Your task to perform on an android device: Open Google Chrome Image 0: 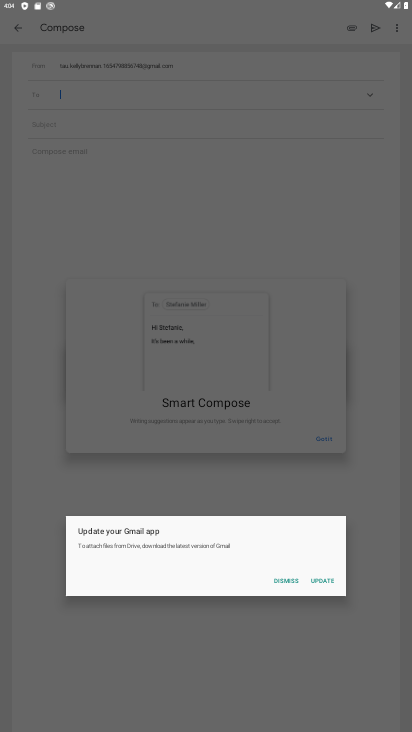
Step 0: press home button
Your task to perform on an android device: Open Google Chrome Image 1: 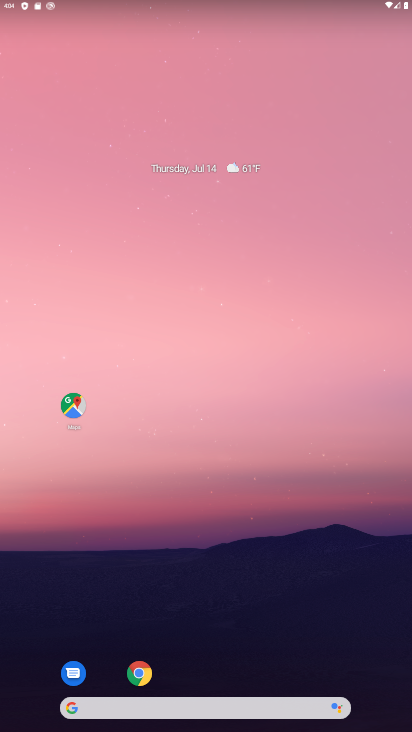
Step 1: click (147, 669)
Your task to perform on an android device: Open Google Chrome Image 2: 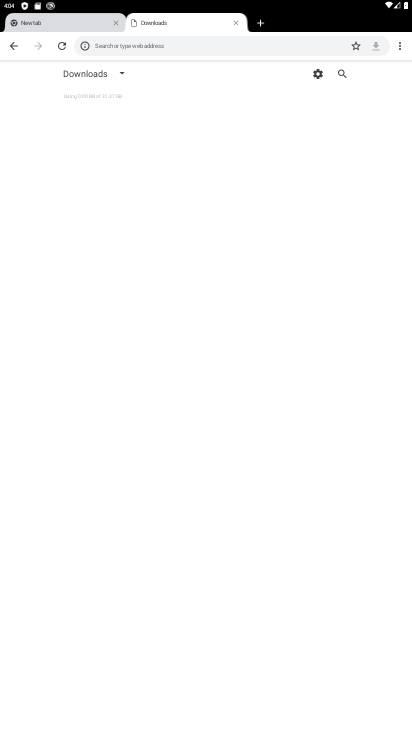
Step 2: task complete